Your task to perform on an android device: Is it going to rain today? Image 0: 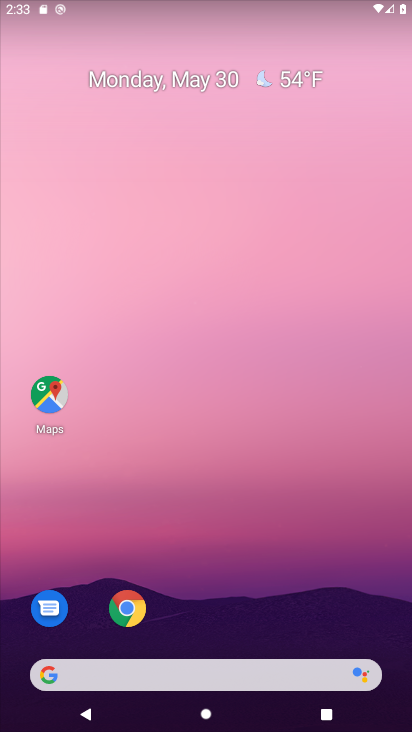
Step 0: drag from (261, 448) to (221, 730)
Your task to perform on an android device: Is it going to rain today? Image 1: 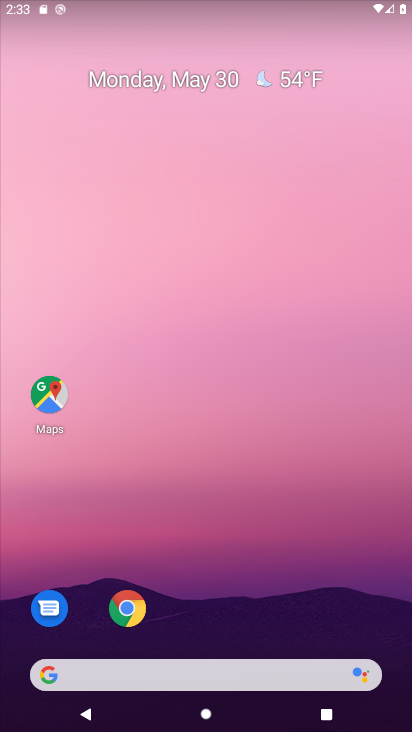
Step 1: click (285, 78)
Your task to perform on an android device: Is it going to rain today? Image 2: 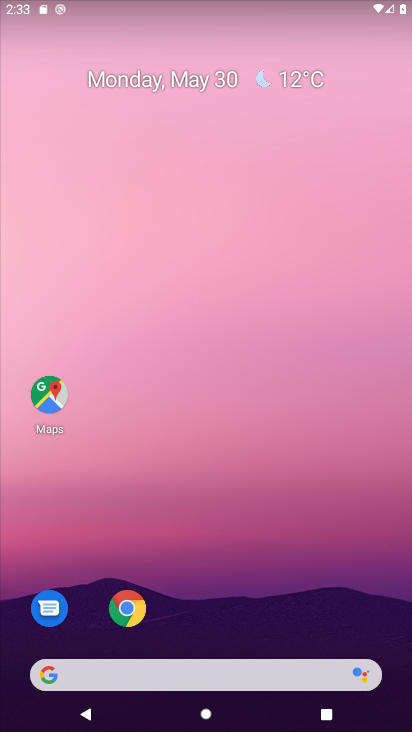
Step 2: click (290, 85)
Your task to perform on an android device: Is it going to rain today? Image 3: 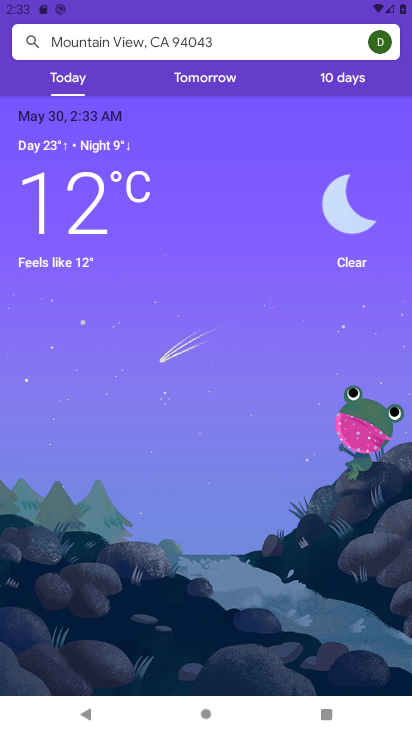
Step 3: task complete